Your task to perform on an android device: Show me popular games on the Play Store Image 0: 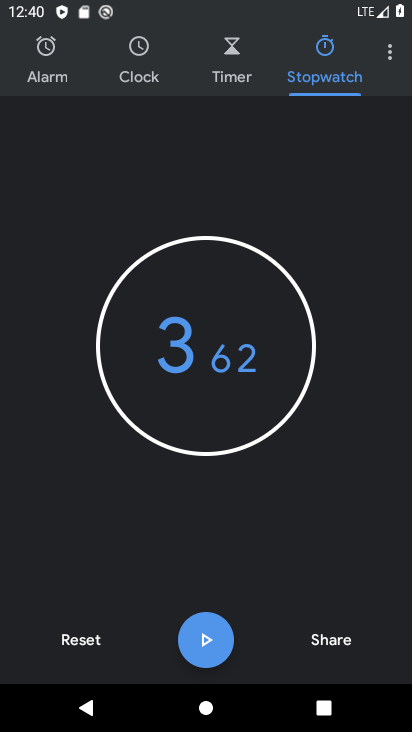
Step 0: press home button
Your task to perform on an android device: Show me popular games on the Play Store Image 1: 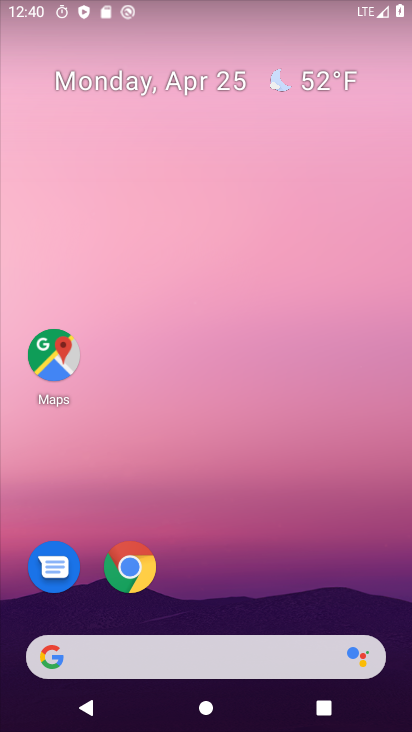
Step 1: drag from (244, 535) to (211, 34)
Your task to perform on an android device: Show me popular games on the Play Store Image 2: 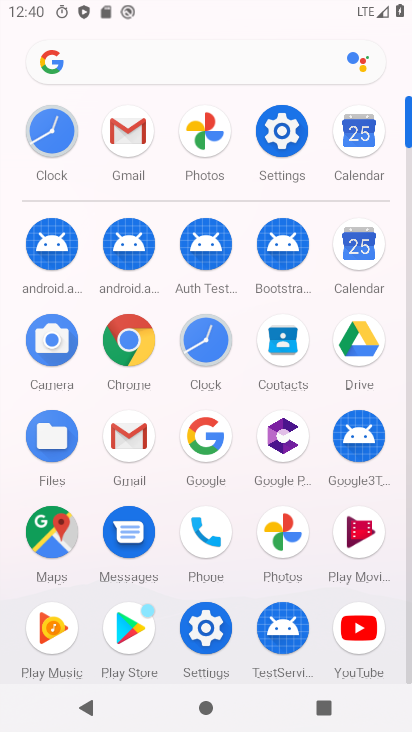
Step 2: click (136, 625)
Your task to perform on an android device: Show me popular games on the Play Store Image 3: 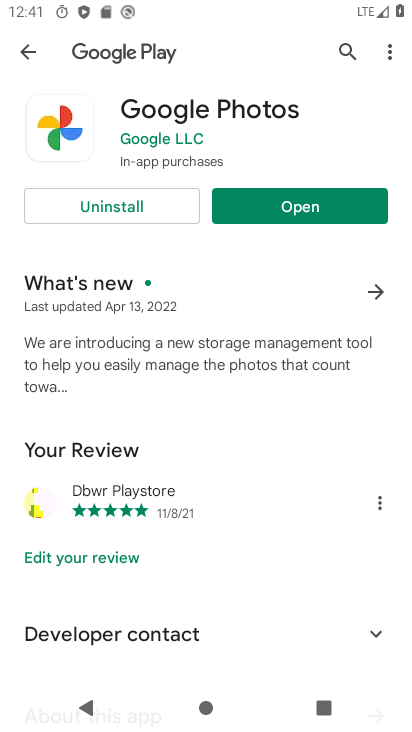
Step 3: click (28, 51)
Your task to perform on an android device: Show me popular games on the Play Store Image 4: 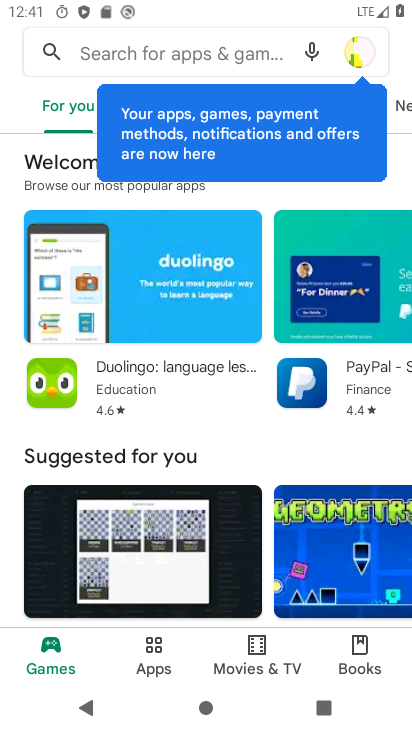
Step 4: task complete